Your task to perform on an android device: Open the map Image 0: 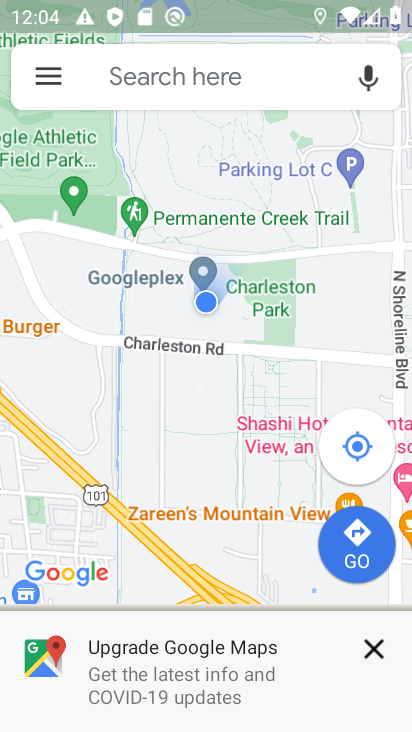
Step 0: press home button
Your task to perform on an android device: Open the map Image 1: 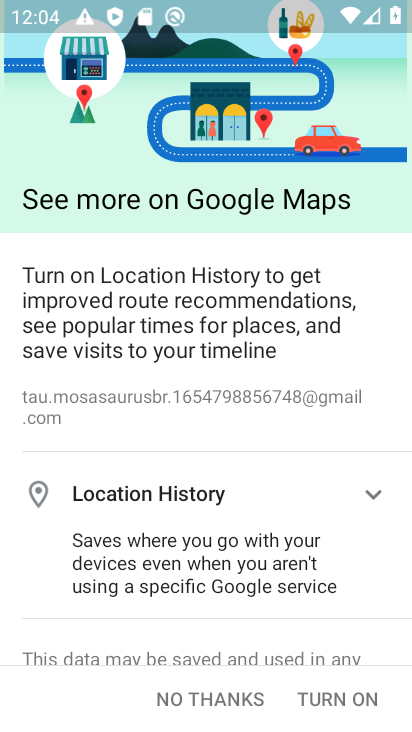
Step 1: click (358, 695)
Your task to perform on an android device: Open the map Image 2: 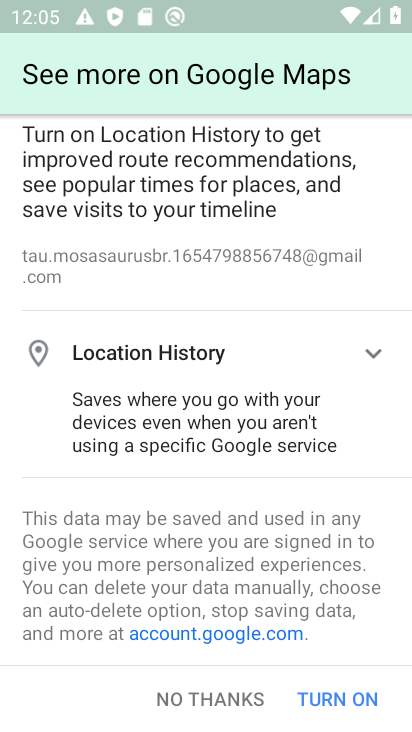
Step 2: click (297, 695)
Your task to perform on an android device: Open the map Image 3: 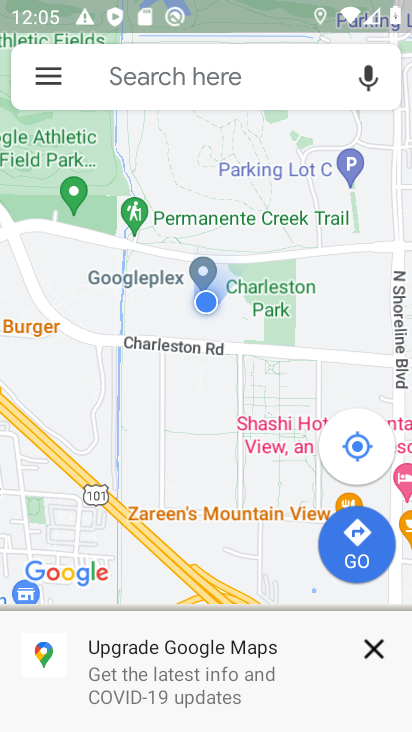
Step 3: task complete